Your task to perform on an android device: Clear all items from cart on ebay. Add "beats solo 3" to the cart on ebay, then select checkout. Image 0: 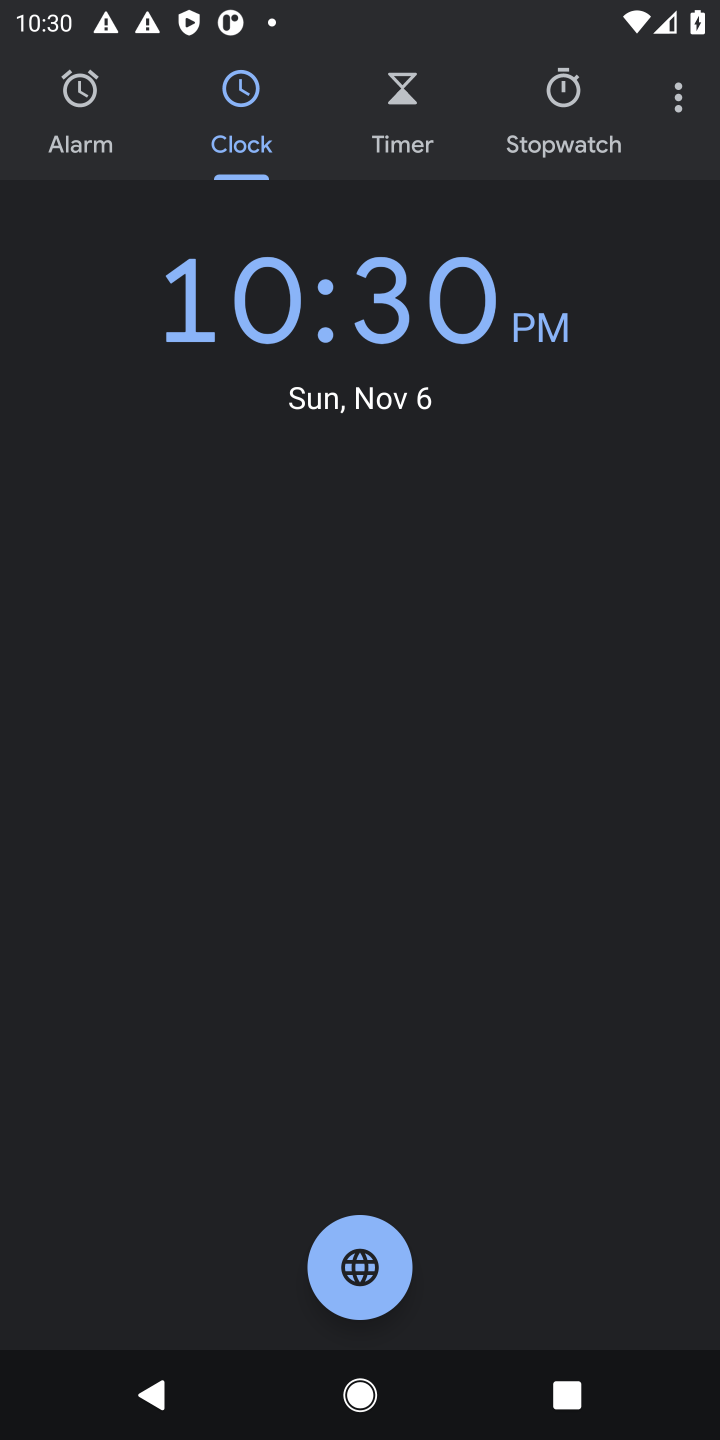
Step 0: press home button
Your task to perform on an android device: Clear all items from cart on ebay. Add "beats solo 3" to the cart on ebay, then select checkout. Image 1: 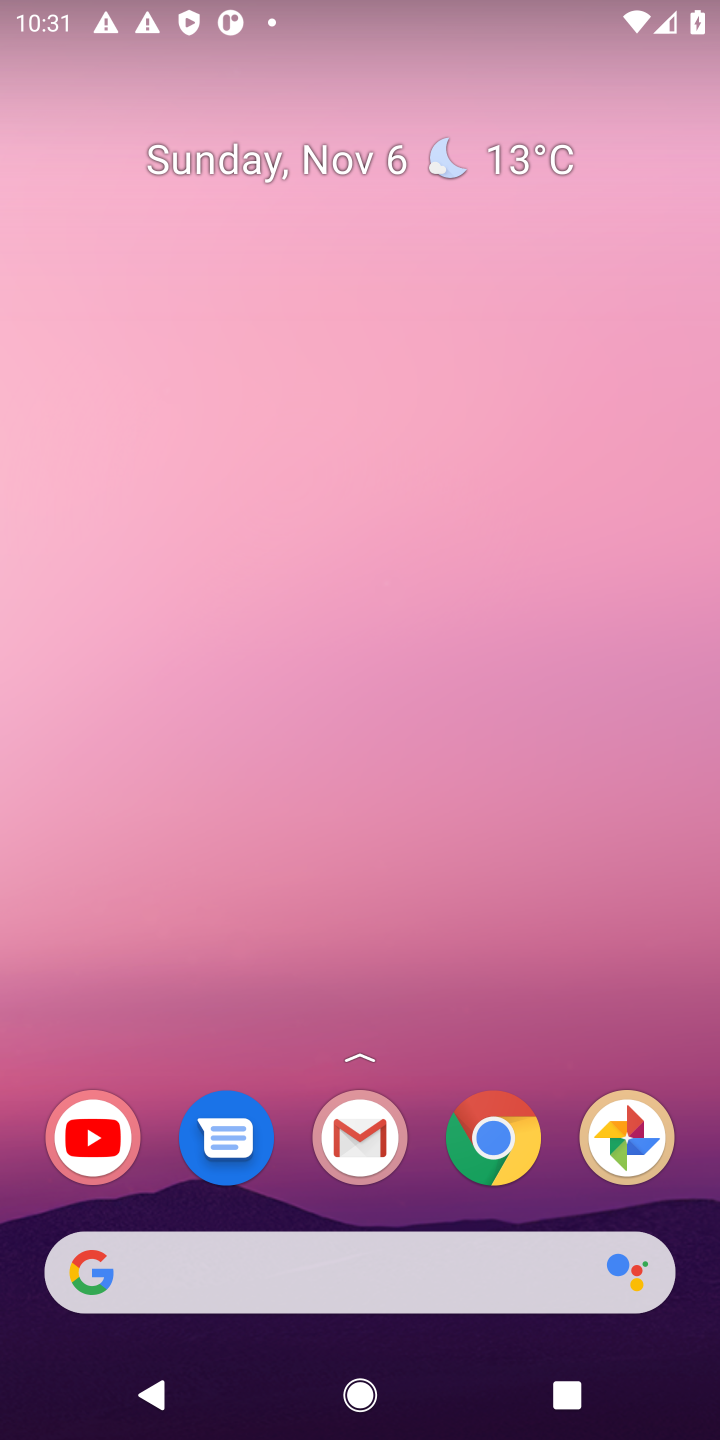
Step 1: click (488, 1140)
Your task to perform on an android device: Clear all items from cart on ebay. Add "beats solo 3" to the cart on ebay, then select checkout. Image 2: 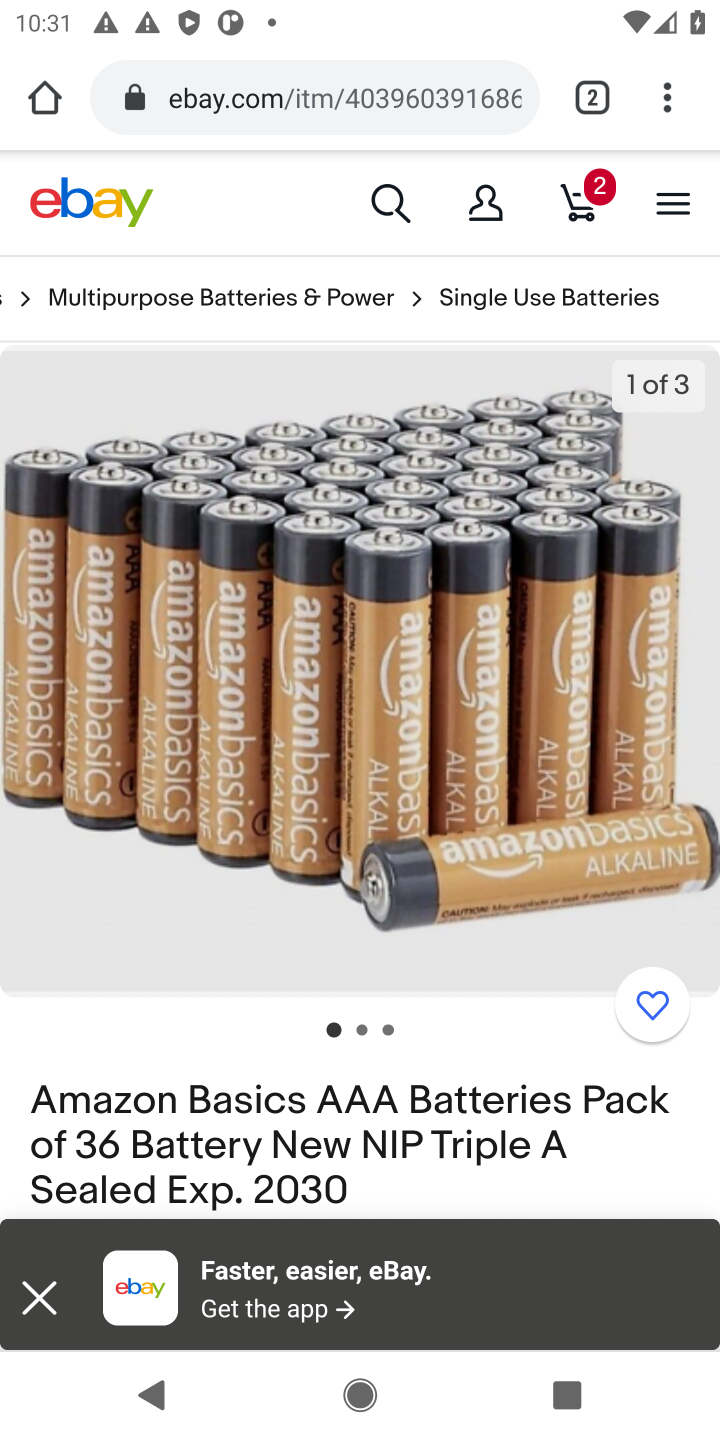
Step 2: click (569, 204)
Your task to perform on an android device: Clear all items from cart on ebay. Add "beats solo 3" to the cart on ebay, then select checkout. Image 3: 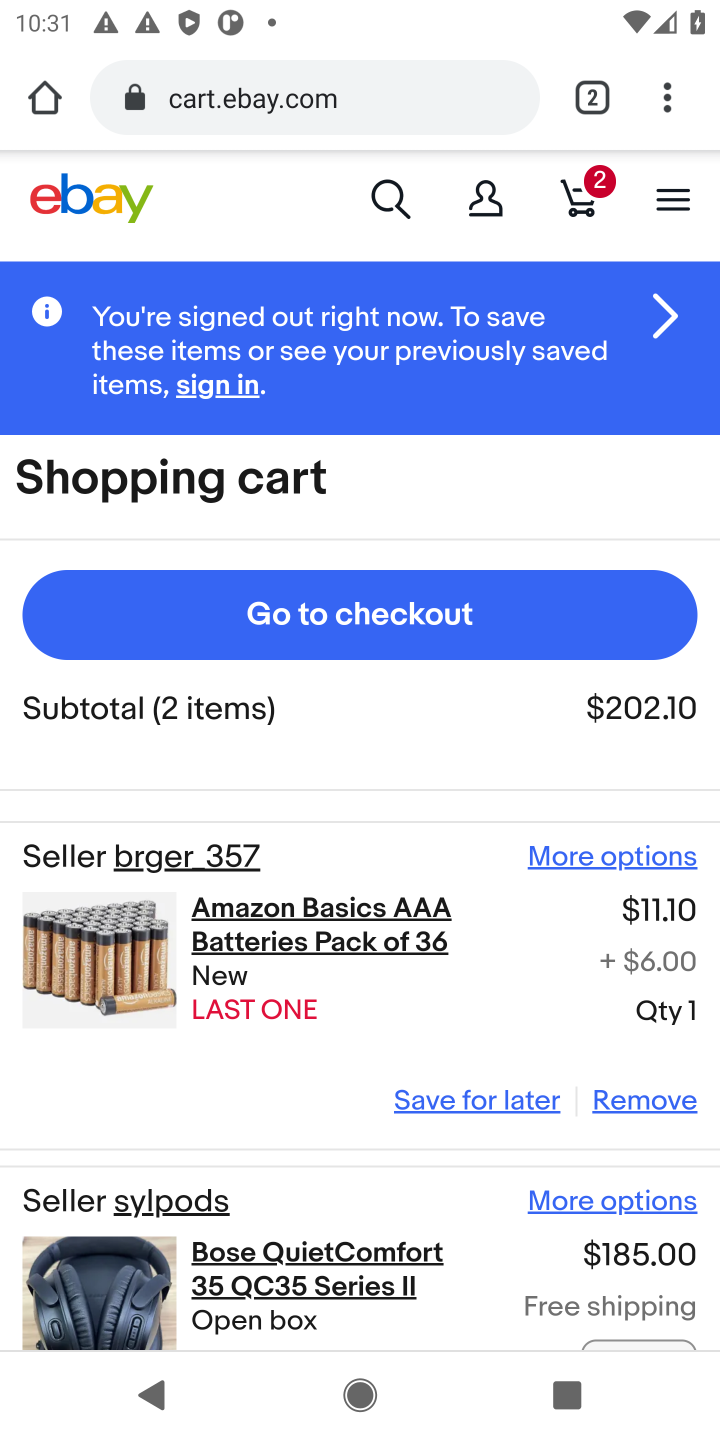
Step 3: click (642, 1108)
Your task to perform on an android device: Clear all items from cart on ebay. Add "beats solo 3" to the cart on ebay, then select checkout. Image 4: 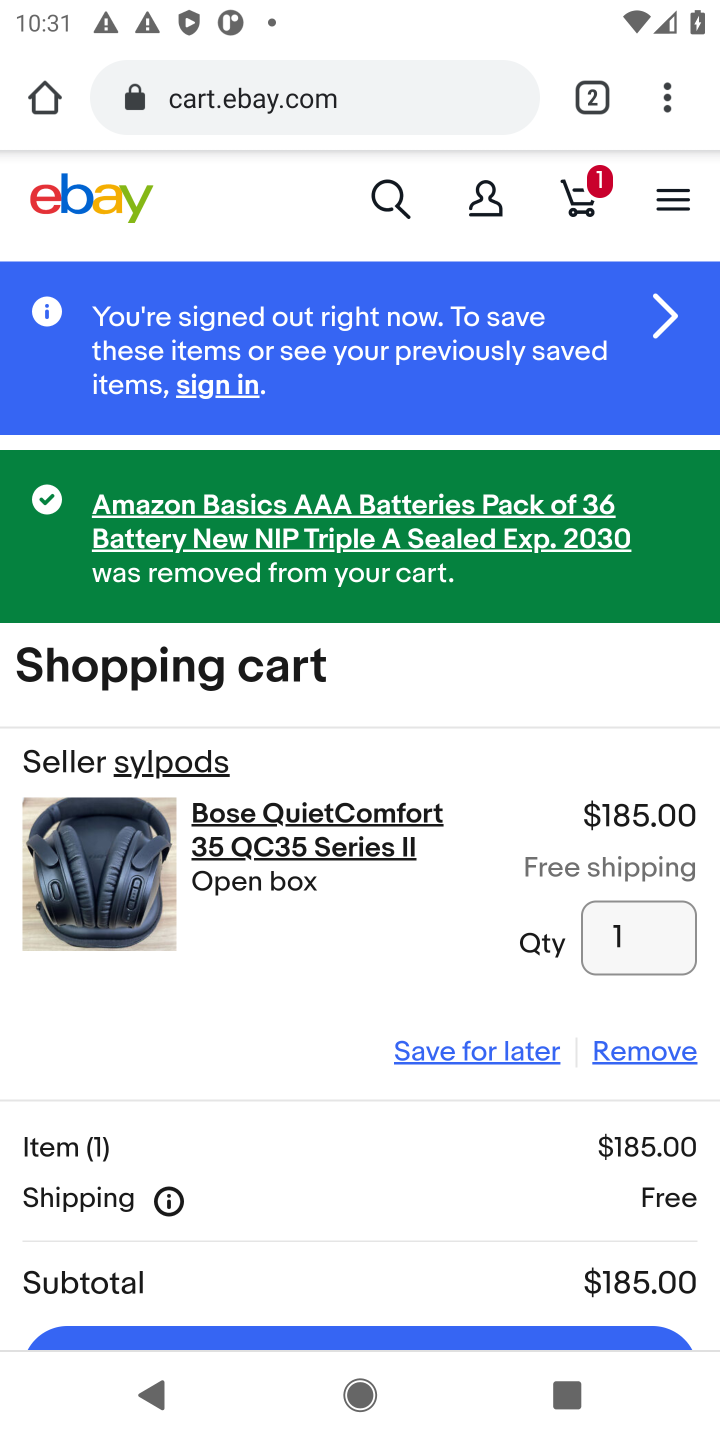
Step 4: click (645, 1056)
Your task to perform on an android device: Clear all items from cart on ebay. Add "beats solo 3" to the cart on ebay, then select checkout. Image 5: 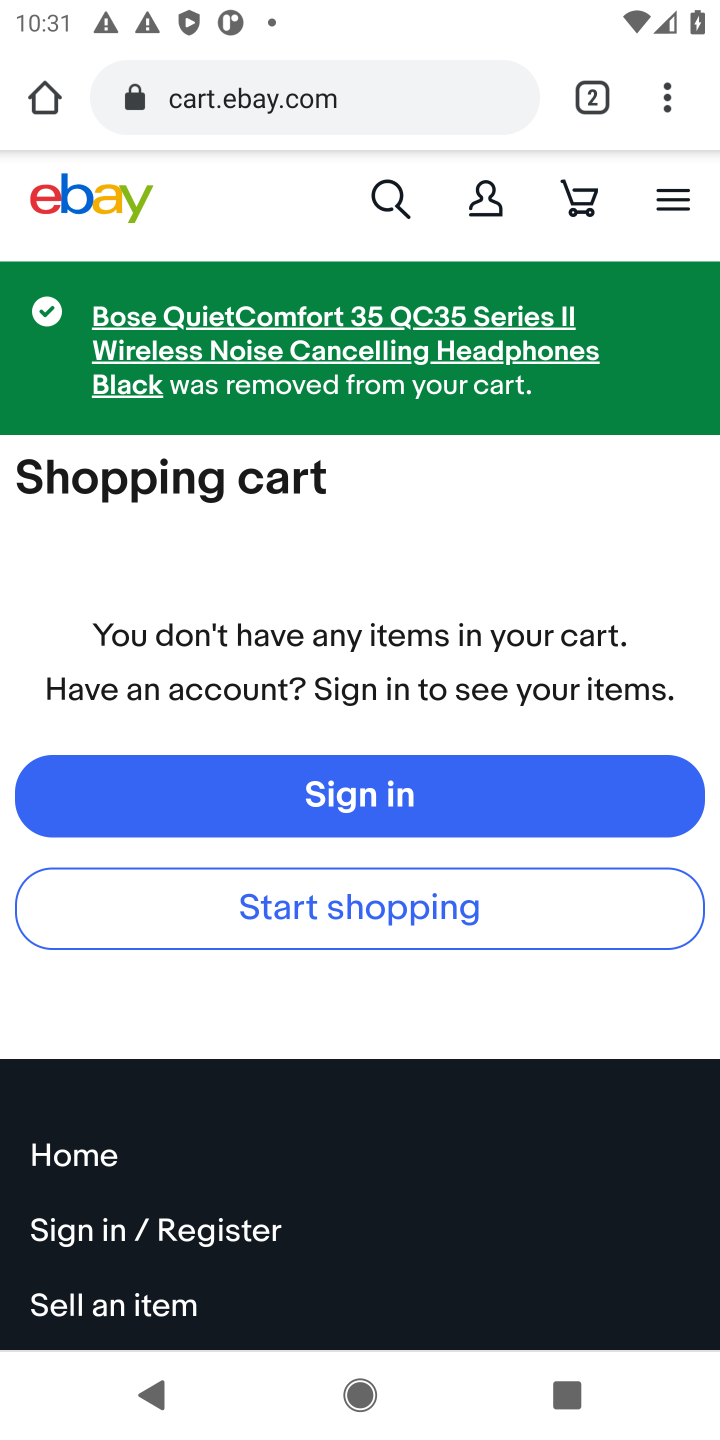
Step 5: click (325, 909)
Your task to perform on an android device: Clear all items from cart on ebay. Add "beats solo 3" to the cart on ebay, then select checkout. Image 6: 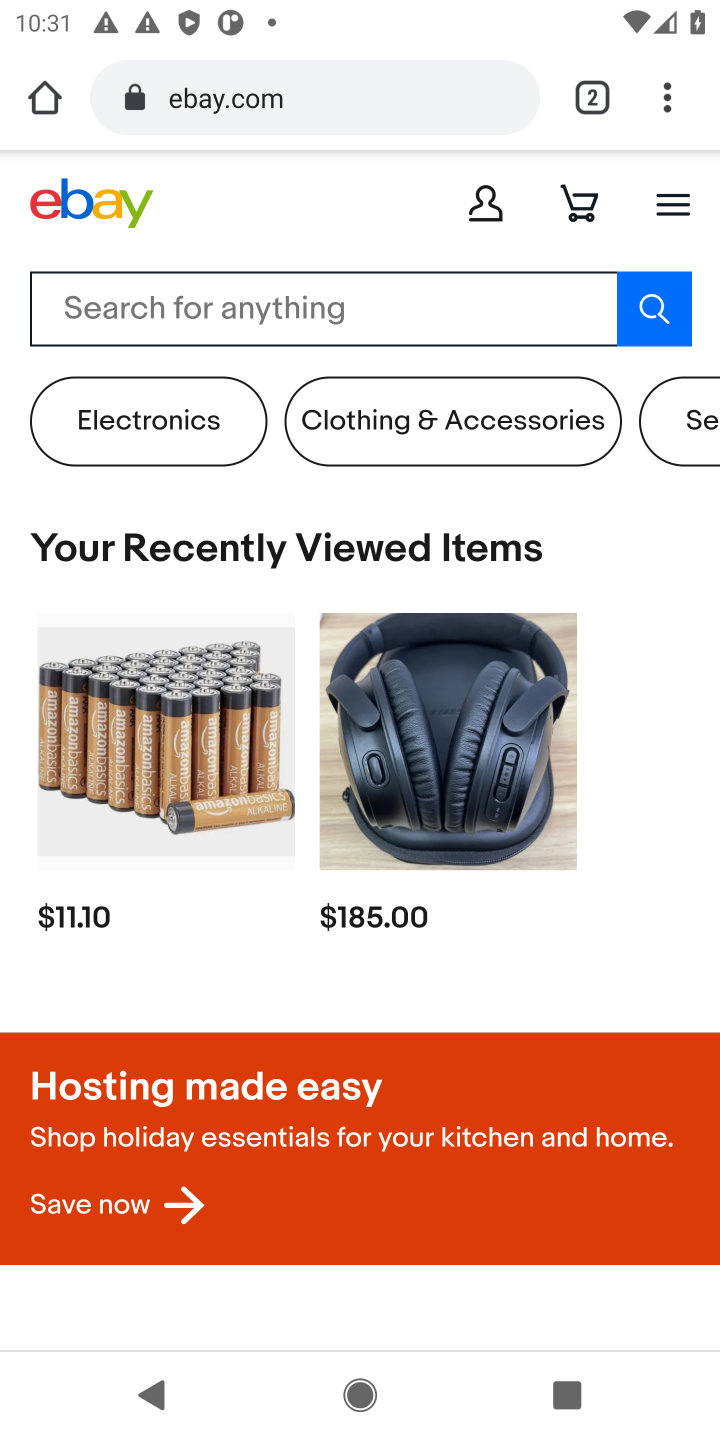
Step 6: click (227, 312)
Your task to perform on an android device: Clear all items from cart on ebay. Add "beats solo 3" to the cart on ebay, then select checkout. Image 7: 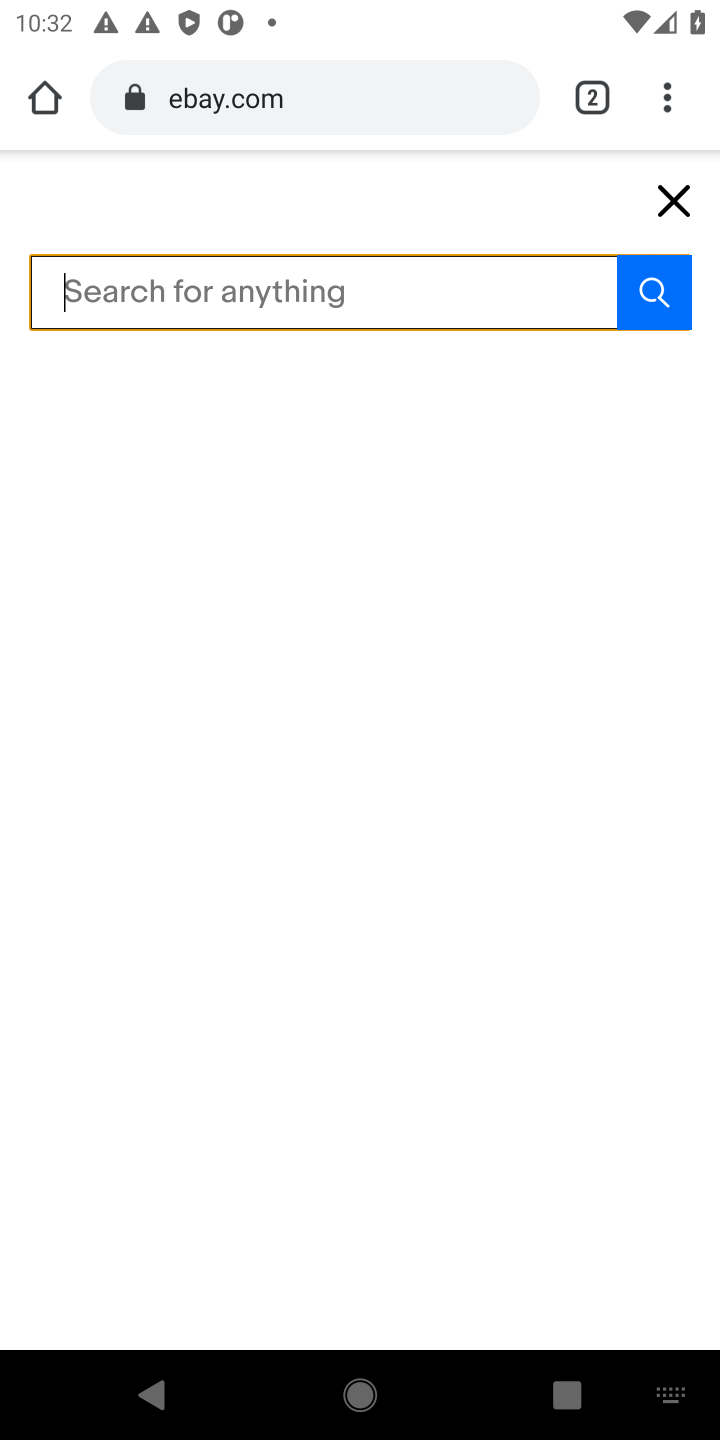
Step 7: type "beats solo 3"
Your task to perform on an android device: Clear all items from cart on ebay. Add "beats solo 3" to the cart on ebay, then select checkout. Image 8: 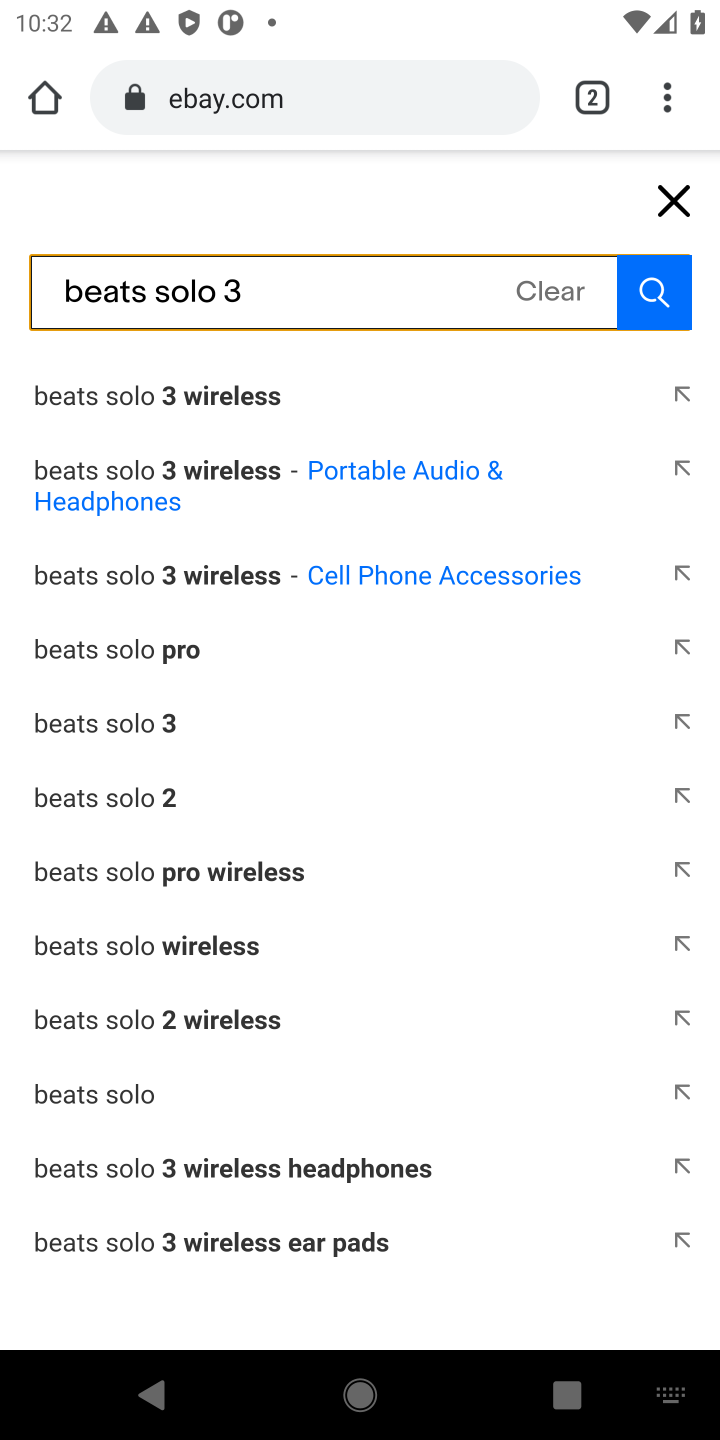
Step 8: click (64, 725)
Your task to perform on an android device: Clear all items from cart on ebay. Add "beats solo 3" to the cart on ebay, then select checkout. Image 9: 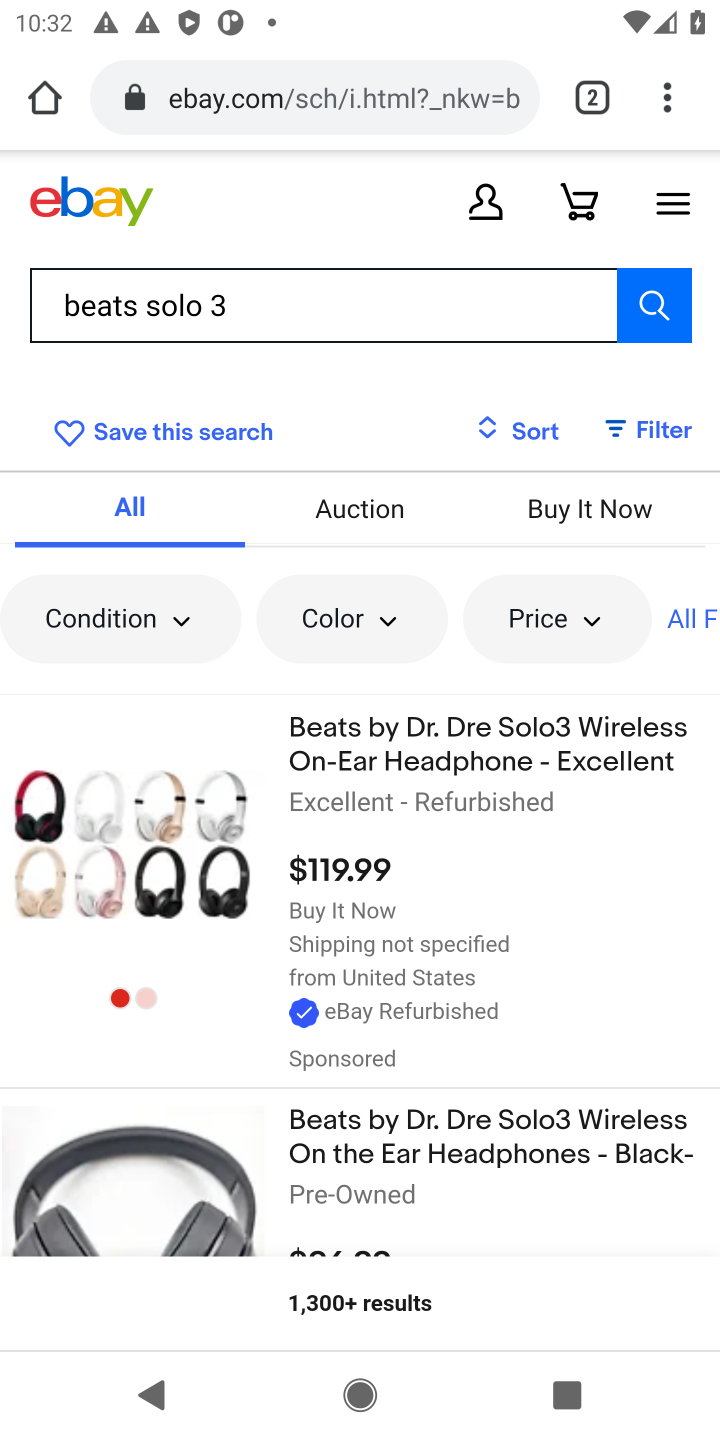
Step 9: drag from (491, 976) to (457, 469)
Your task to perform on an android device: Clear all items from cart on ebay. Add "beats solo 3" to the cart on ebay, then select checkout. Image 10: 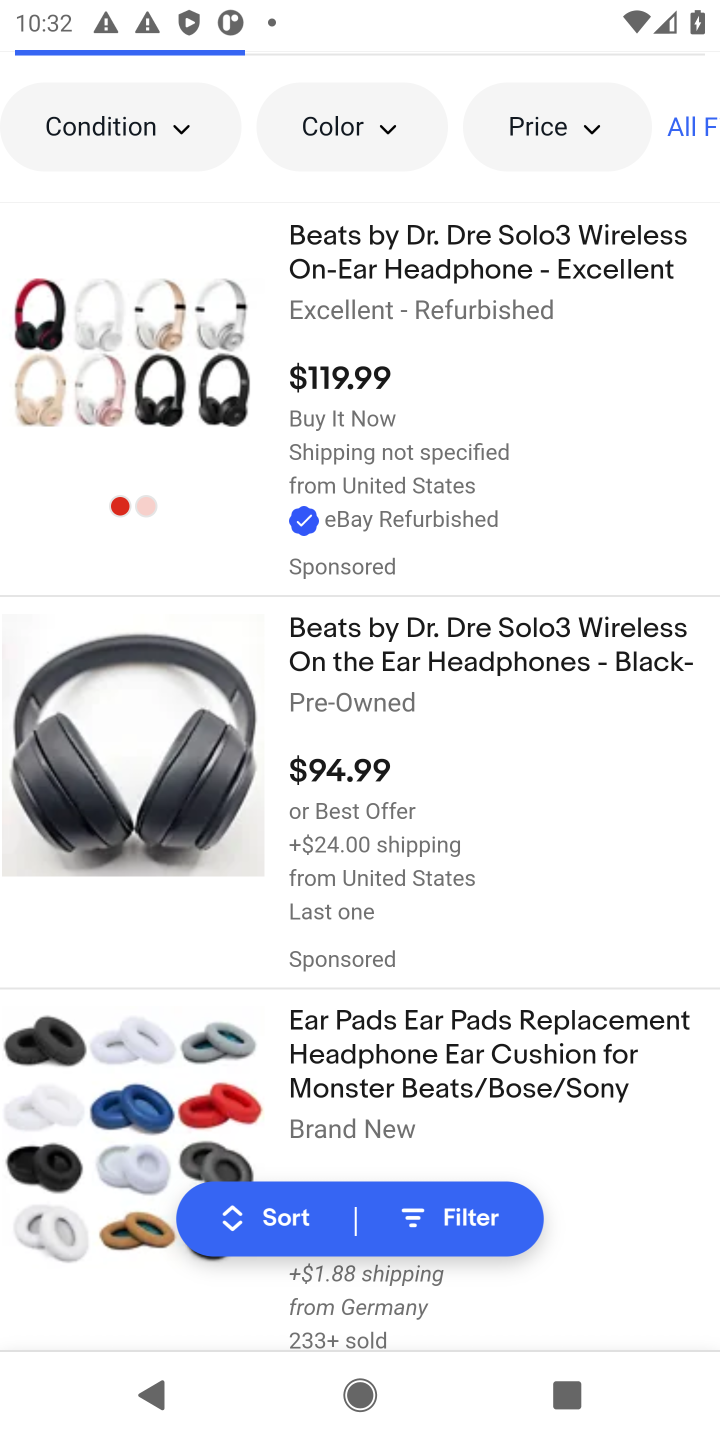
Step 10: click (467, 260)
Your task to perform on an android device: Clear all items from cart on ebay. Add "beats solo 3" to the cart on ebay, then select checkout. Image 11: 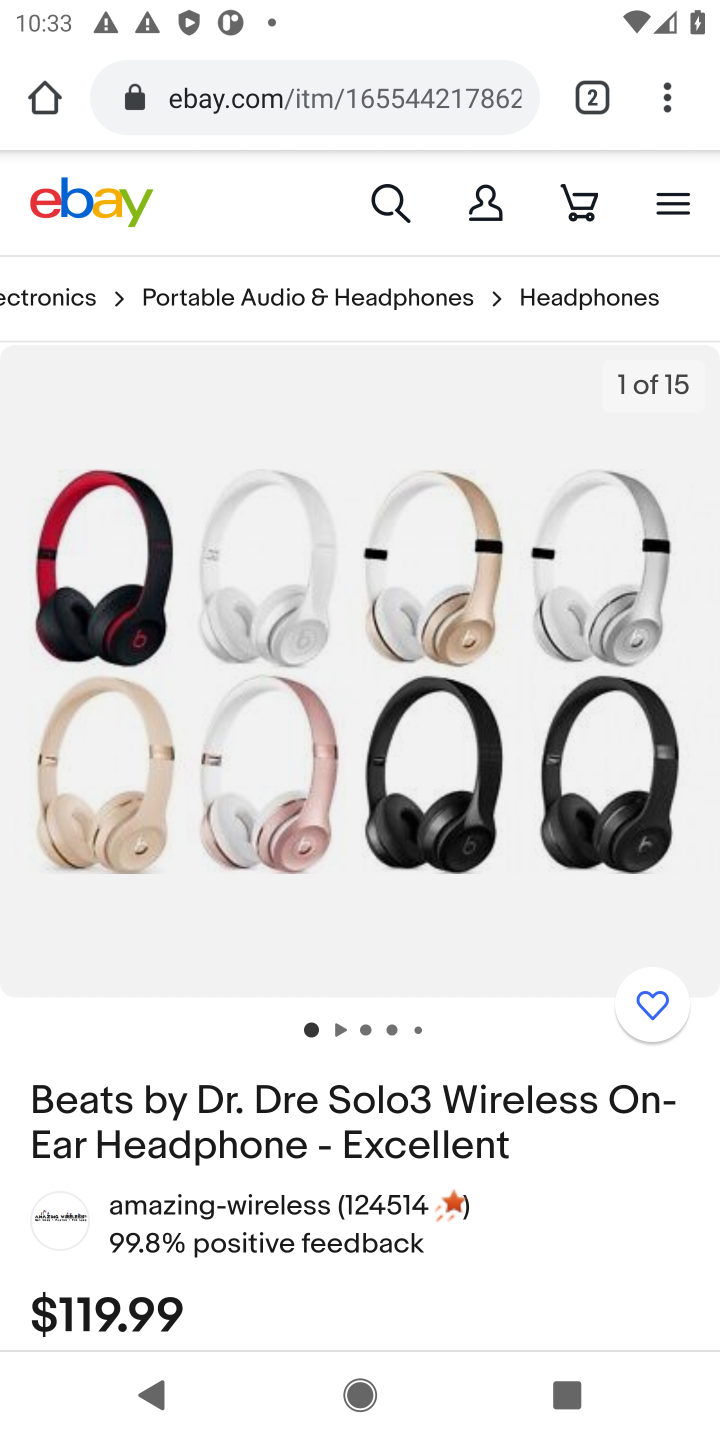
Step 11: drag from (483, 1219) to (465, 201)
Your task to perform on an android device: Clear all items from cart on ebay. Add "beats solo 3" to the cart on ebay, then select checkout. Image 12: 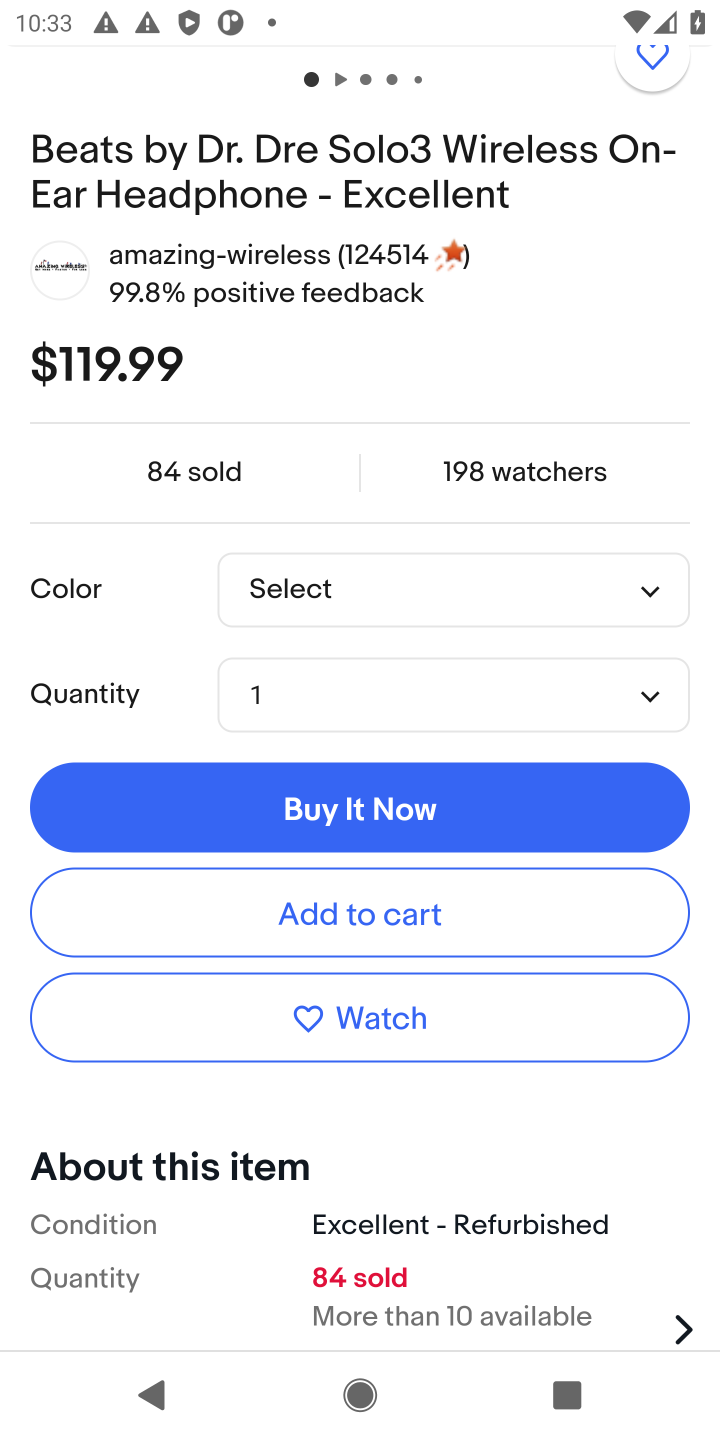
Step 12: click (356, 914)
Your task to perform on an android device: Clear all items from cart on ebay. Add "beats solo 3" to the cart on ebay, then select checkout. Image 13: 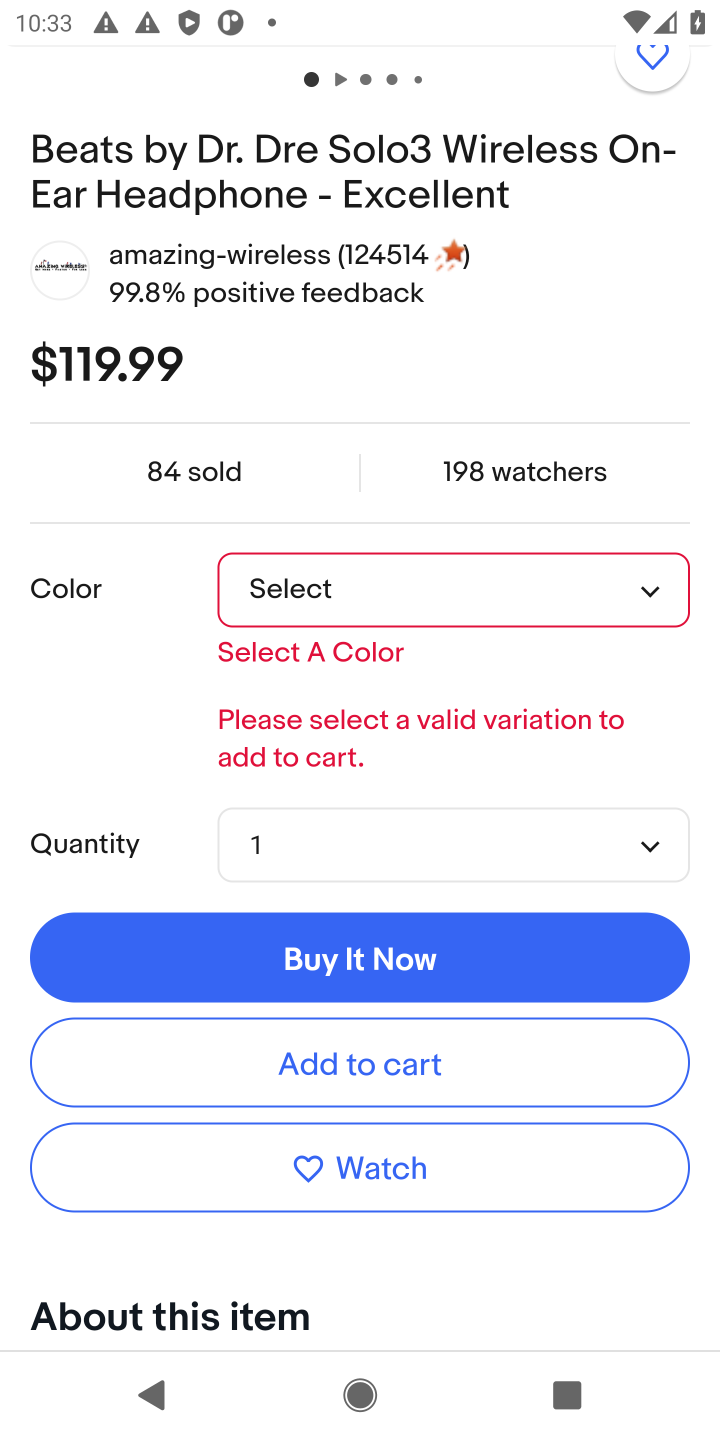
Step 13: click (652, 590)
Your task to perform on an android device: Clear all items from cart on ebay. Add "beats solo 3" to the cart on ebay, then select checkout. Image 14: 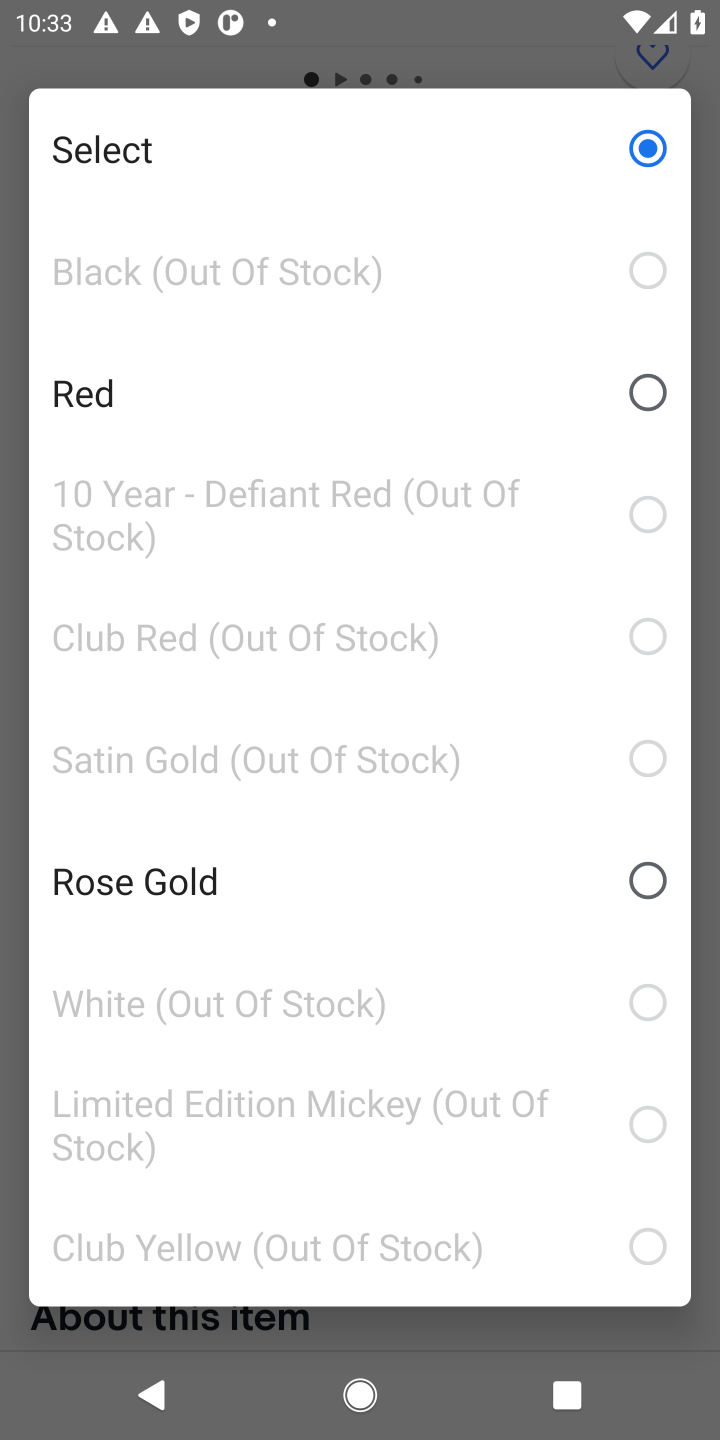
Step 14: click (652, 390)
Your task to perform on an android device: Clear all items from cart on ebay. Add "beats solo 3" to the cart on ebay, then select checkout. Image 15: 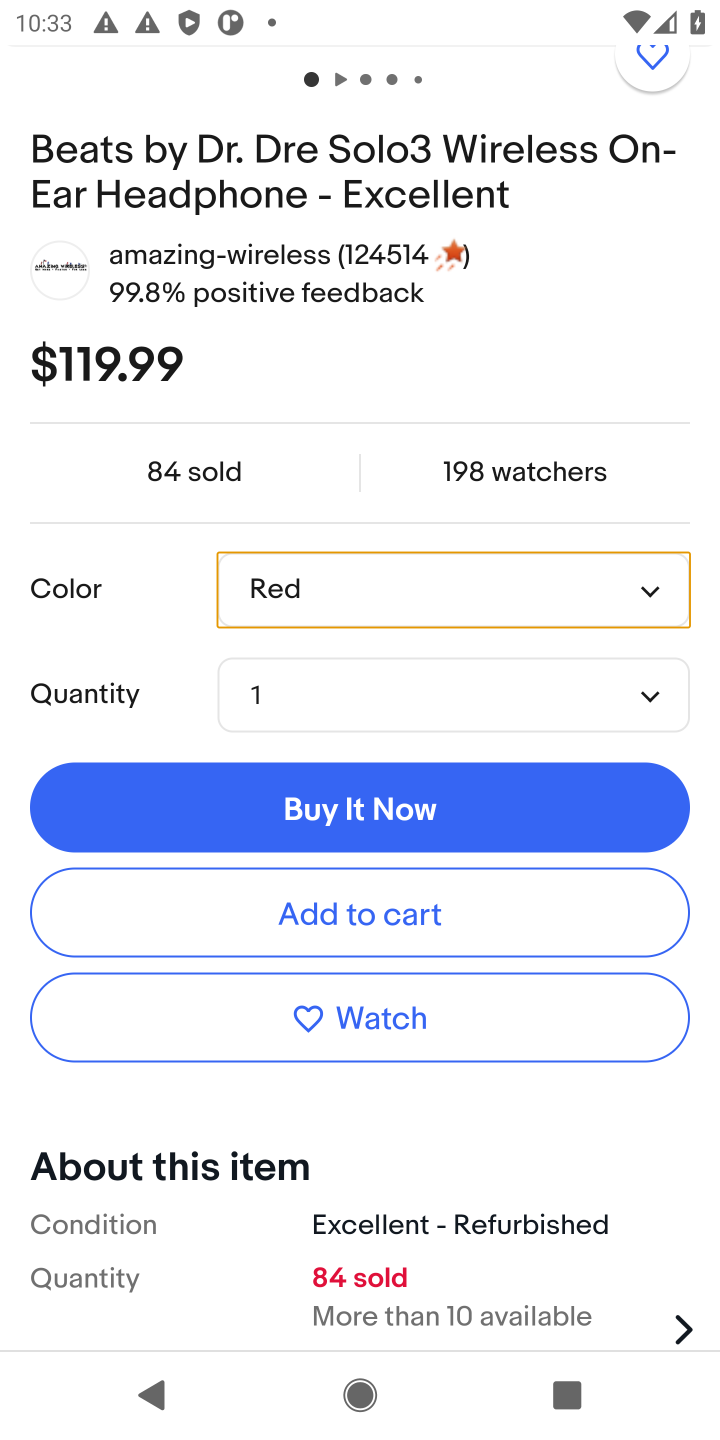
Step 15: click (322, 919)
Your task to perform on an android device: Clear all items from cart on ebay. Add "beats solo 3" to the cart on ebay, then select checkout. Image 16: 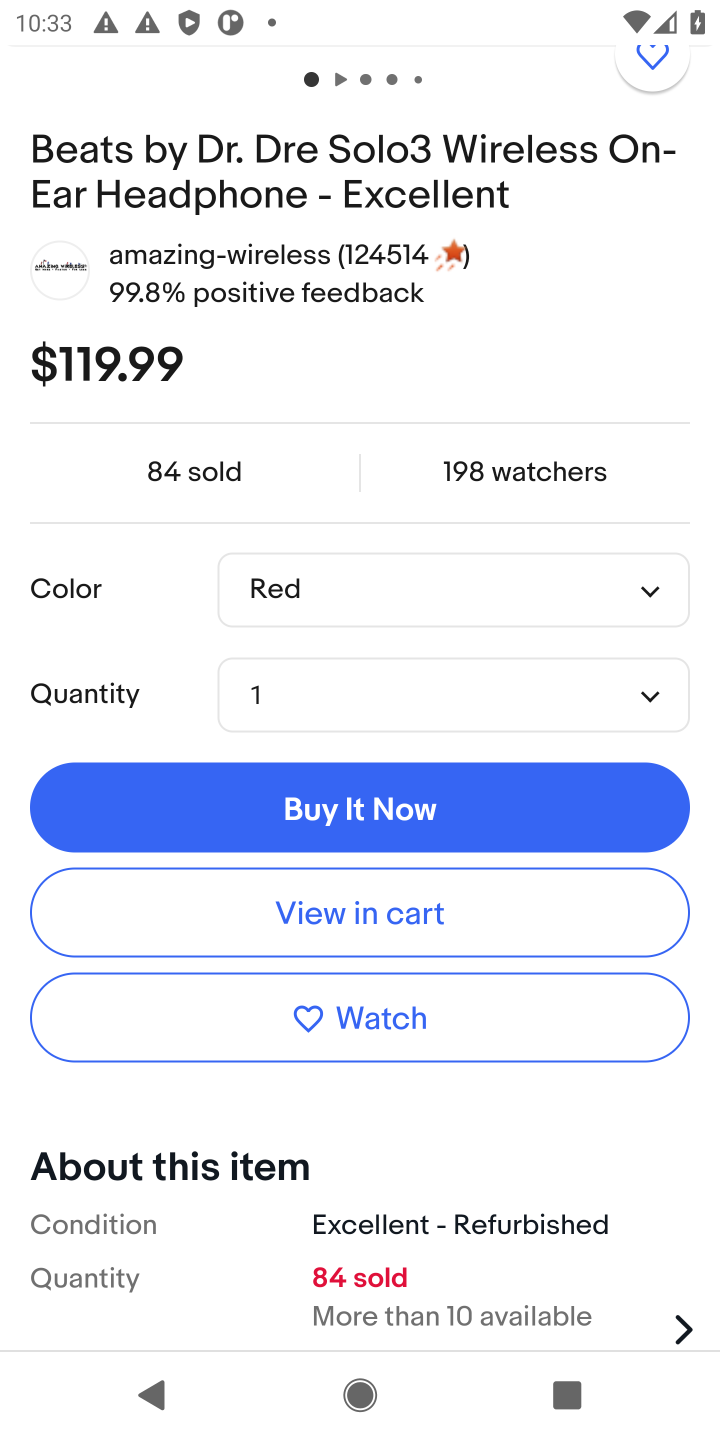
Step 16: click (364, 911)
Your task to perform on an android device: Clear all items from cart on ebay. Add "beats solo 3" to the cart on ebay, then select checkout. Image 17: 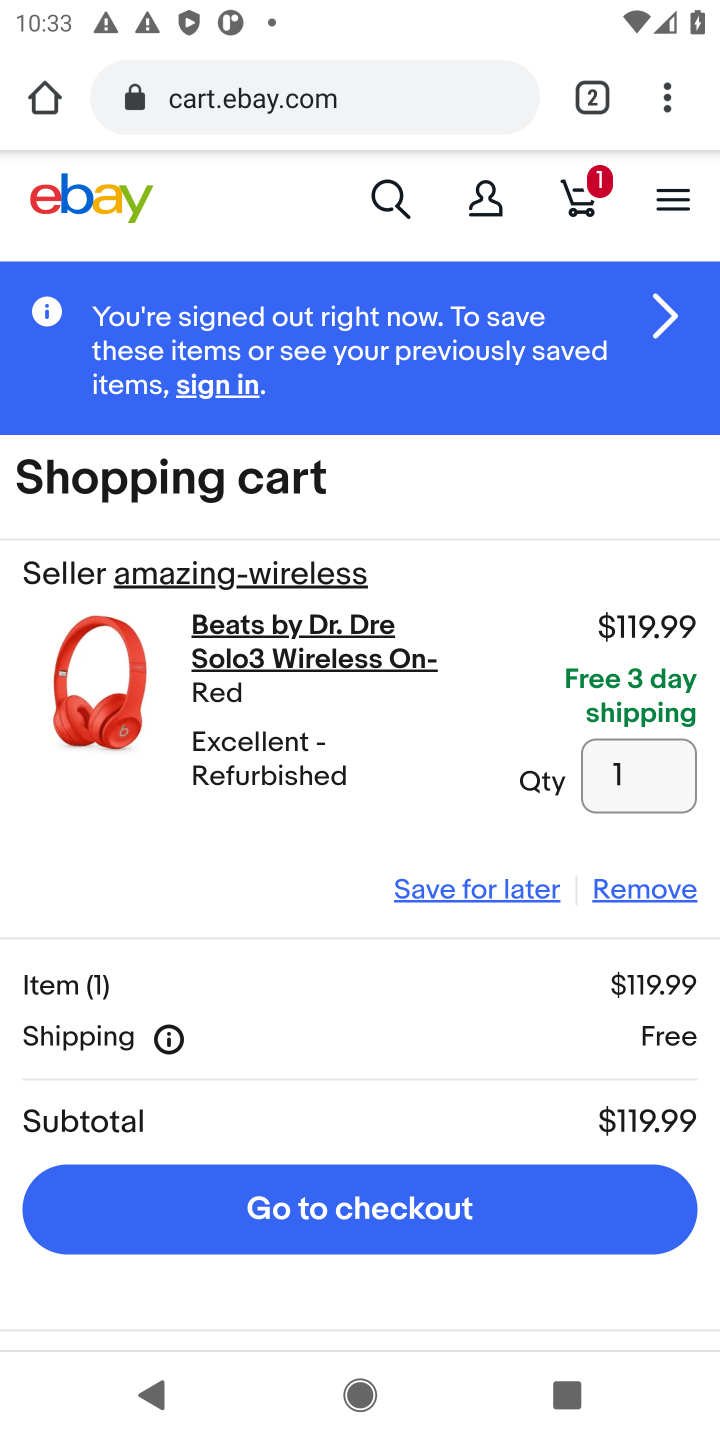
Step 17: click (351, 1213)
Your task to perform on an android device: Clear all items from cart on ebay. Add "beats solo 3" to the cart on ebay, then select checkout. Image 18: 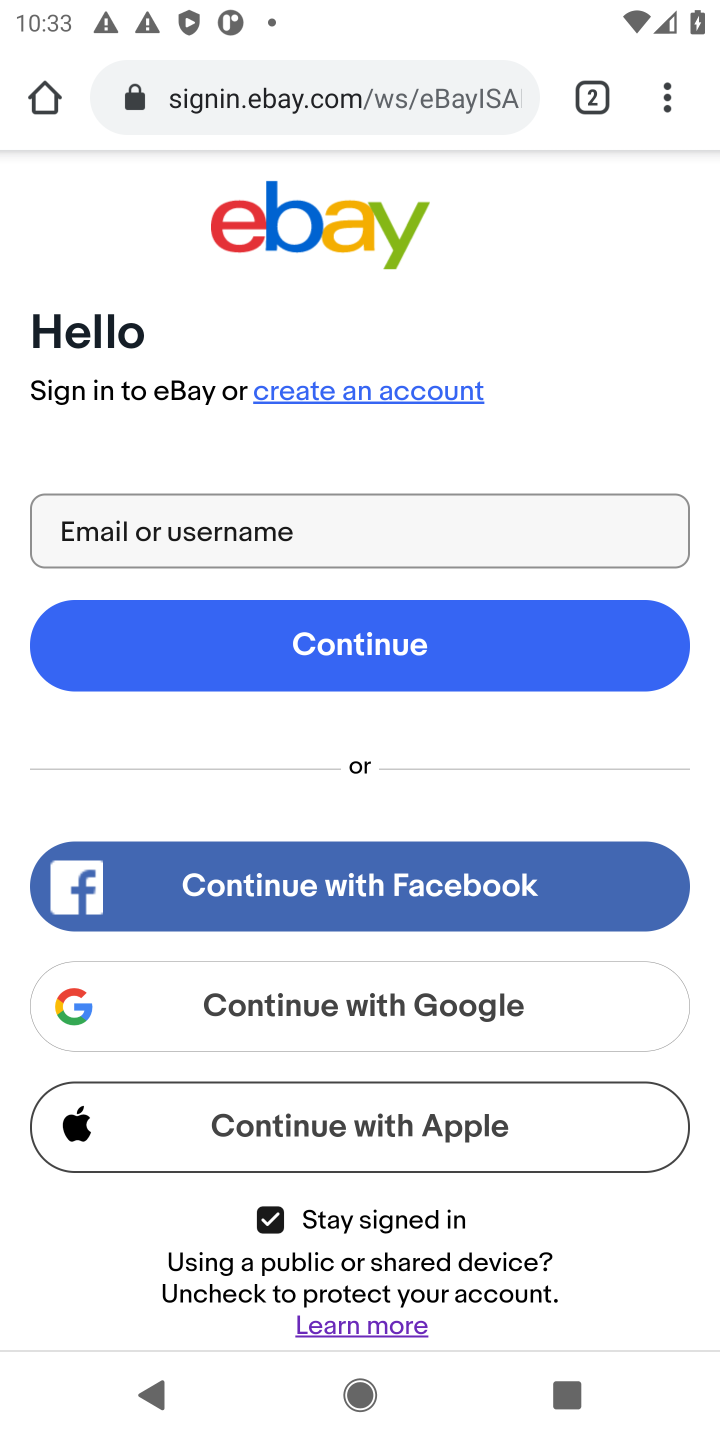
Step 18: task complete